Your task to perform on an android device: turn on priority inbox in the gmail app Image 0: 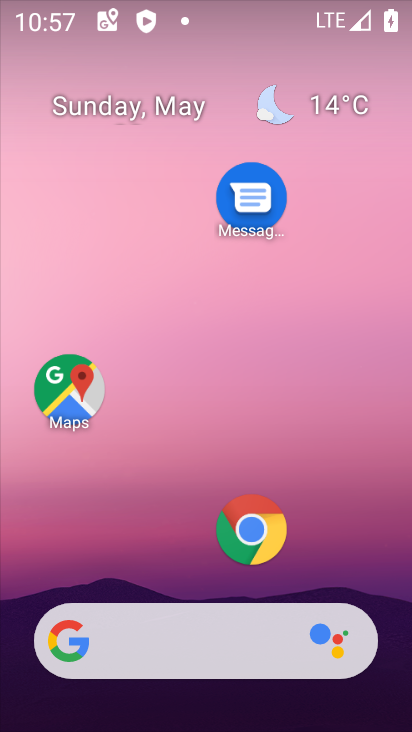
Step 0: drag from (156, 570) to (141, 19)
Your task to perform on an android device: turn on priority inbox in the gmail app Image 1: 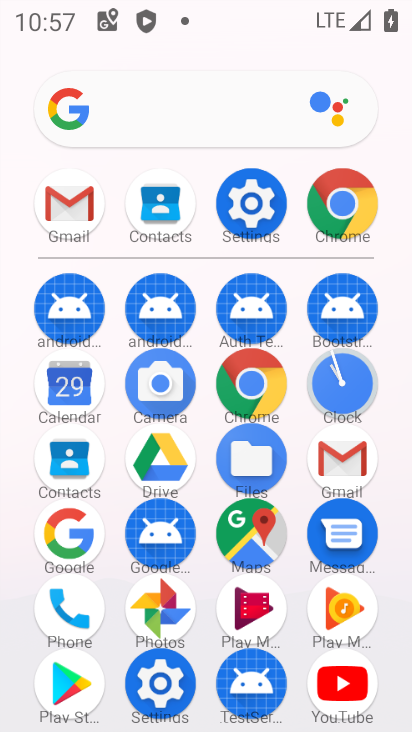
Step 1: click (355, 467)
Your task to perform on an android device: turn on priority inbox in the gmail app Image 2: 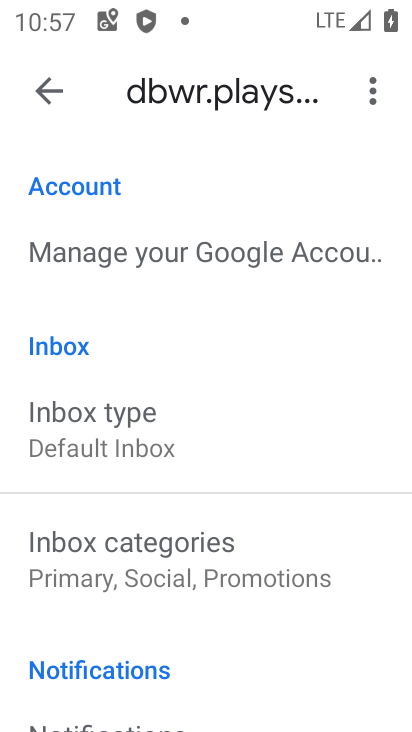
Step 2: click (128, 426)
Your task to perform on an android device: turn on priority inbox in the gmail app Image 3: 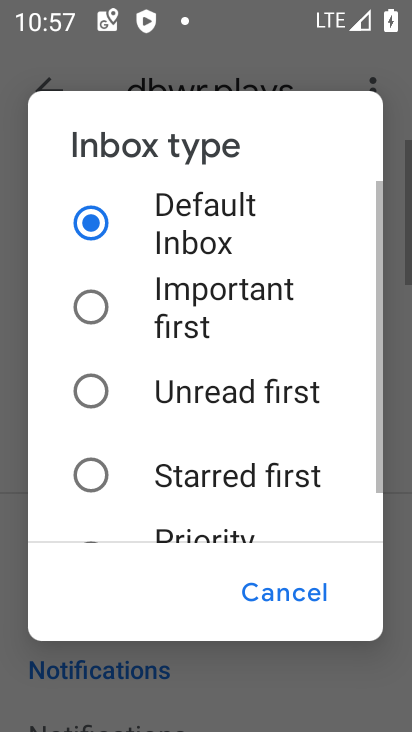
Step 3: drag from (118, 488) to (138, 343)
Your task to perform on an android device: turn on priority inbox in the gmail app Image 4: 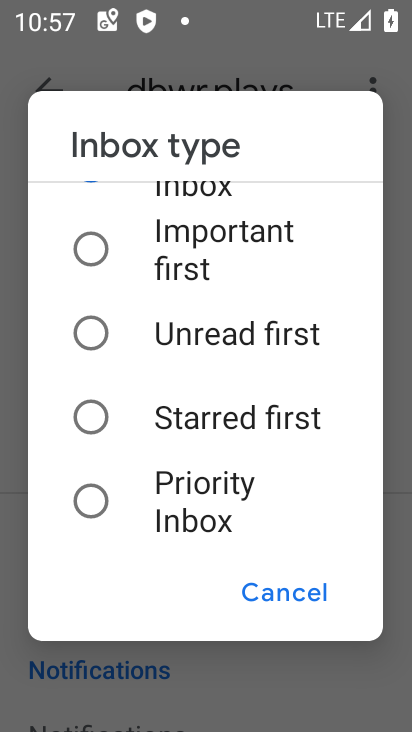
Step 4: click (90, 500)
Your task to perform on an android device: turn on priority inbox in the gmail app Image 5: 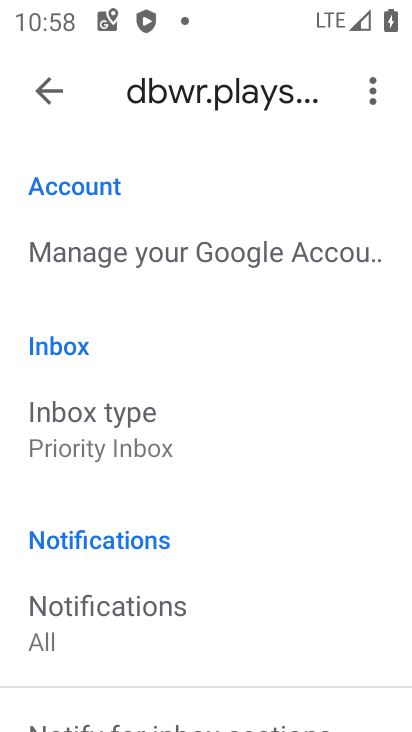
Step 5: task complete